Your task to perform on an android device: change alarm snooze length Image 0: 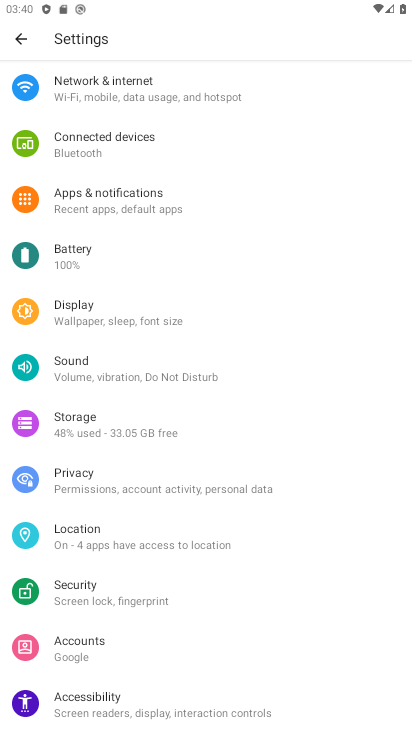
Step 0: press home button
Your task to perform on an android device: change alarm snooze length Image 1: 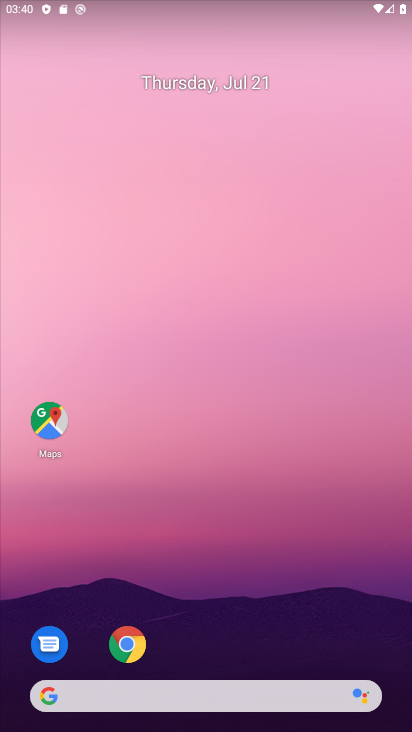
Step 1: drag from (247, 597) to (234, 31)
Your task to perform on an android device: change alarm snooze length Image 2: 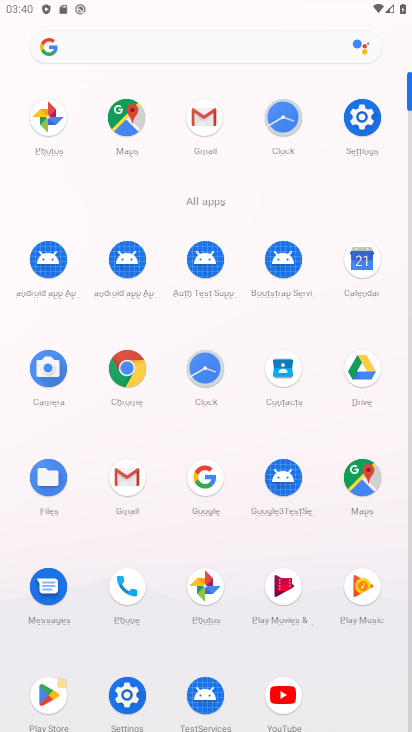
Step 2: click (272, 117)
Your task to perform on an android device: change alarm snooze length Image 3: 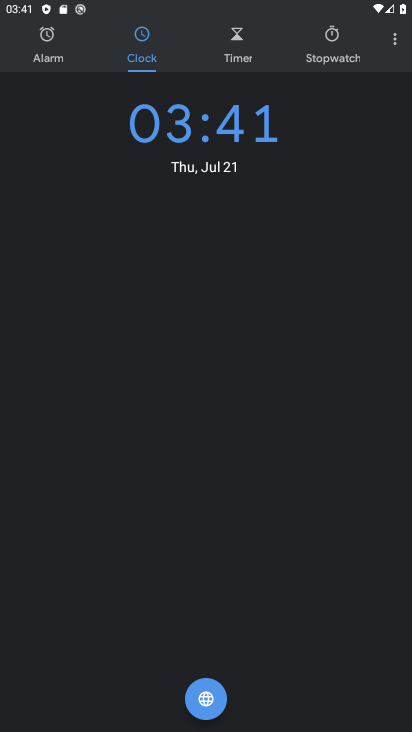
Step 3: click (394, 49)
Your task to perform on an android device: change alarm snooze length Image 4: 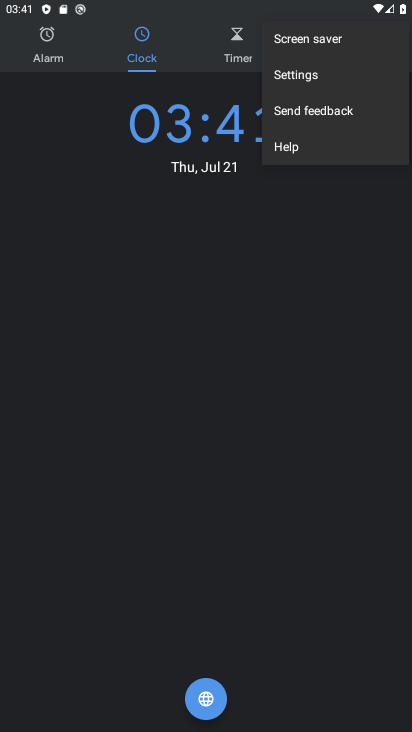
Step 4: click (337, 84)
Your task to perform on an android device: change alarm snooze length Image 5: 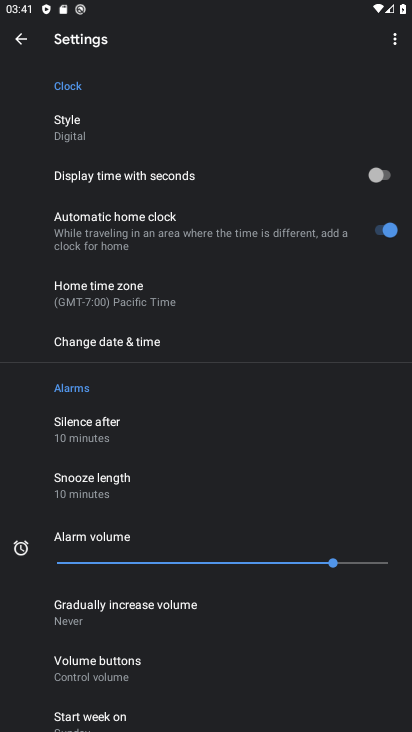
Step 5: click (98, 496)
Your task to perform on an android device: change alarm snooze length Image 6: 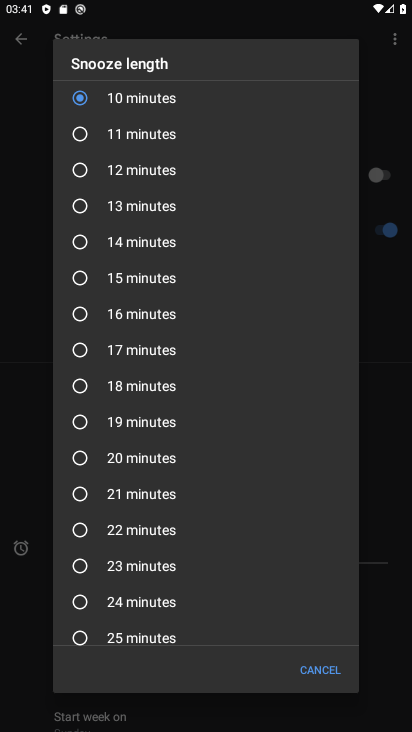
Step 6: click (82, 171)
Your task to perform on an android device: change alarm snooze length Image 7: 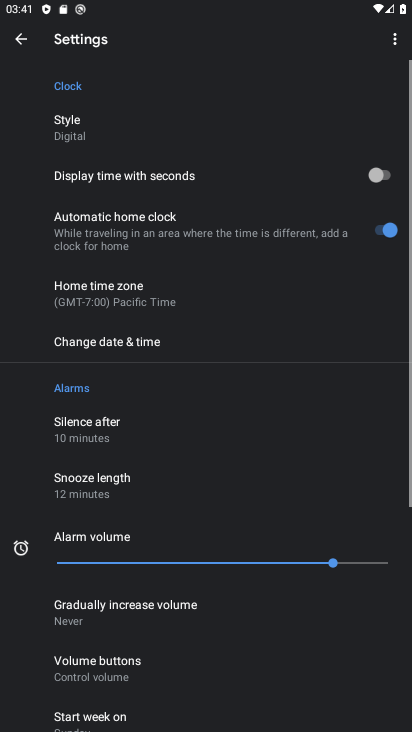
Step 7: task complete